Your task to perform on an android device: check google app version Image 0: 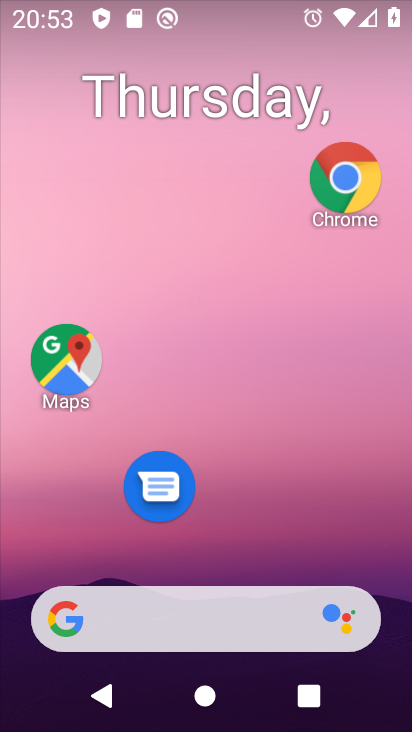
Step 0: drag from (202, 584) to (196, 43)
Your task to perform on an android device: check google app version Image 1: 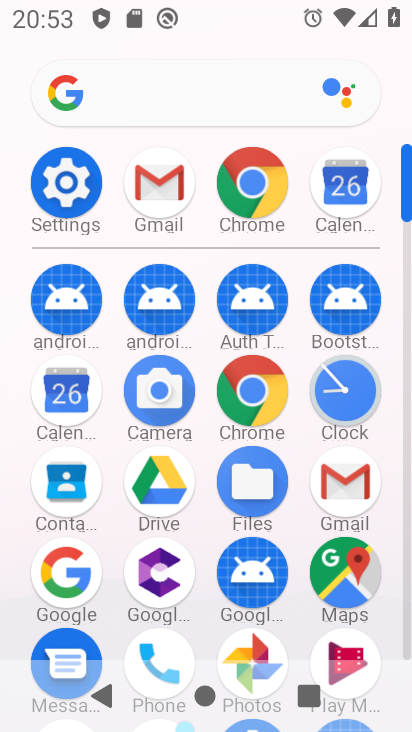
Step 1: click (58, 566)
Your task to perform on an android device: check google app version Image 2: 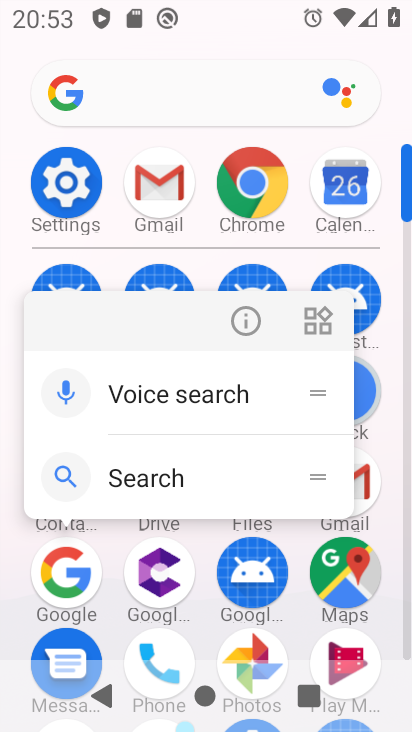
Step 2: click (244, 323)
Your task to perform on an android device: check google app version Image 3: 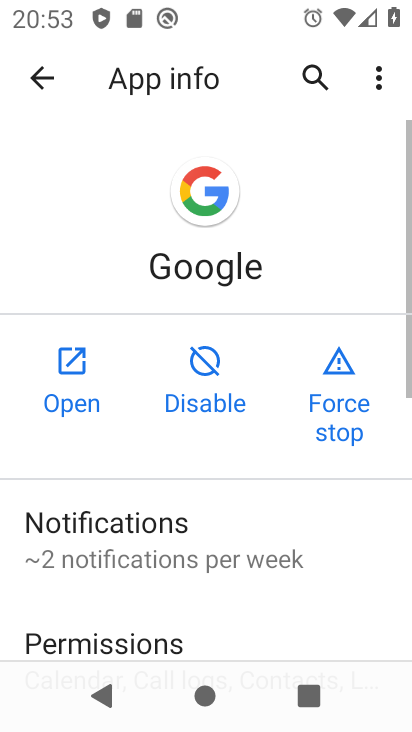
Step 3: drag from (188, 543) to (208, 64)
Your task to perform on an android device: check google app version Image 4: 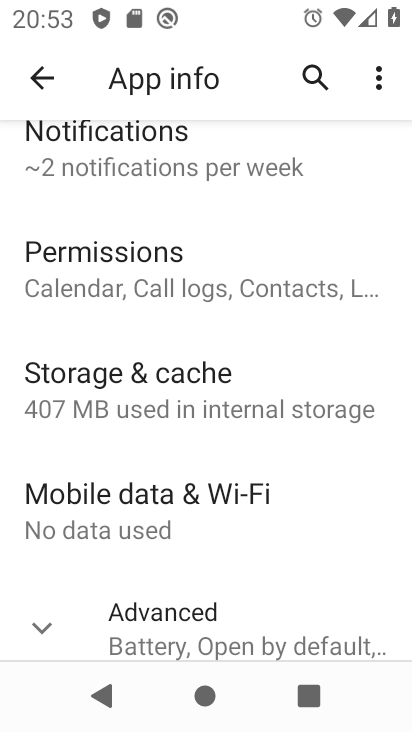
Step 4: drag from (197, 530) to (206, 177)
Your task to perform on an android device: check google app version Image 5: 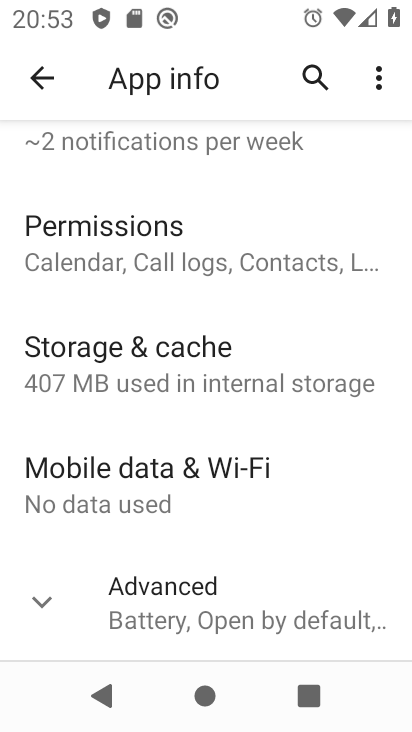
Step 5: click (154, 591)
Your task to perform on an android device: check google app version Image 6: 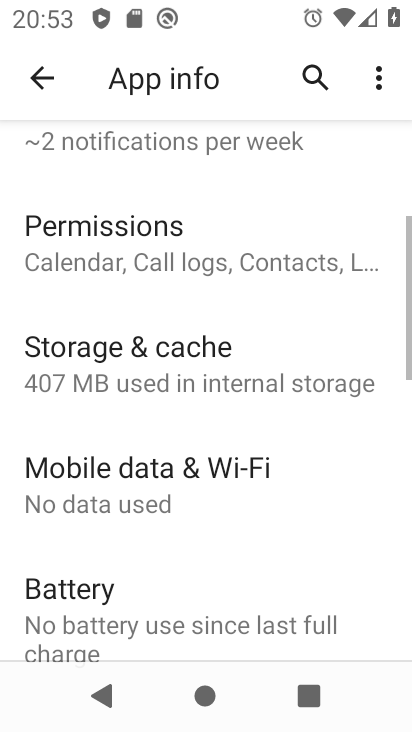
Step 6: task complete